Your task to perform on an android device: open app "File Manager" Image 0: 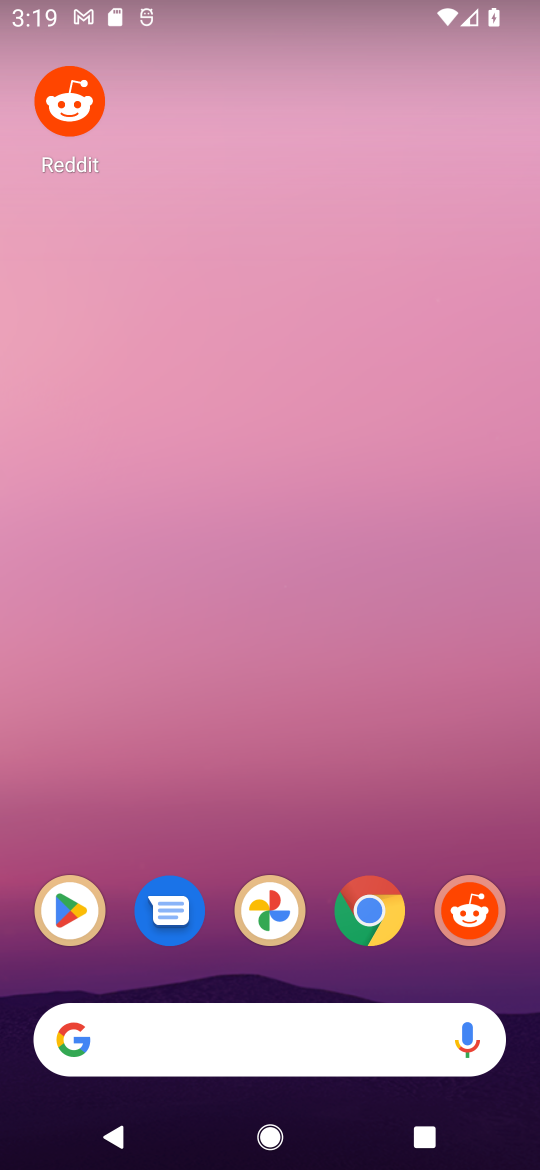
Step 0: drag from (306, 940) to (325, 118)
Your task to perform on an android device: open app "File Manager" Image 1: 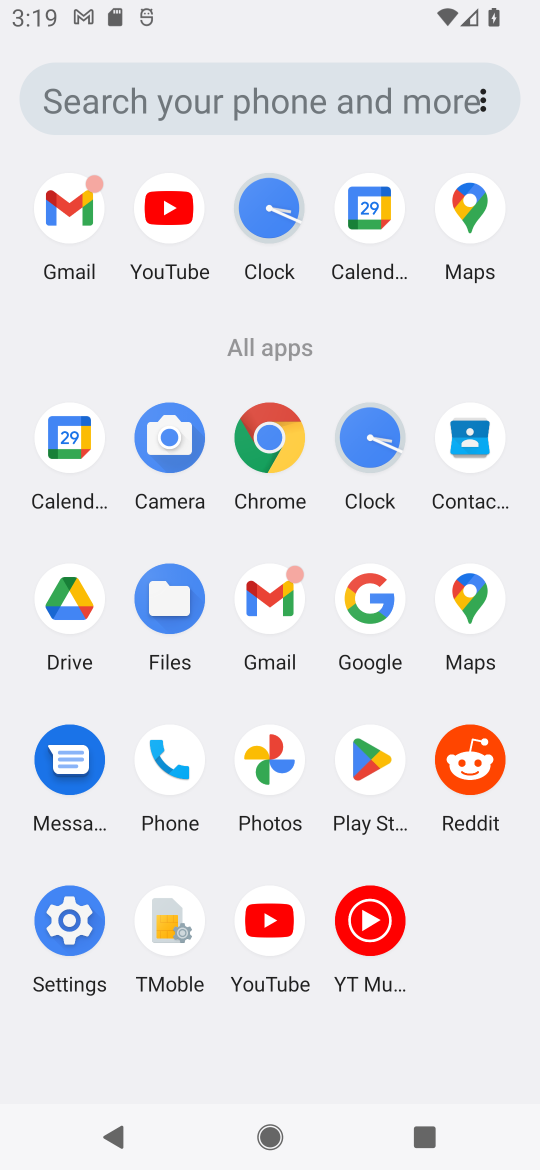
Step 1: click (350, 781)
Your task to perform on an android device: open app "File Manager" Image 2: 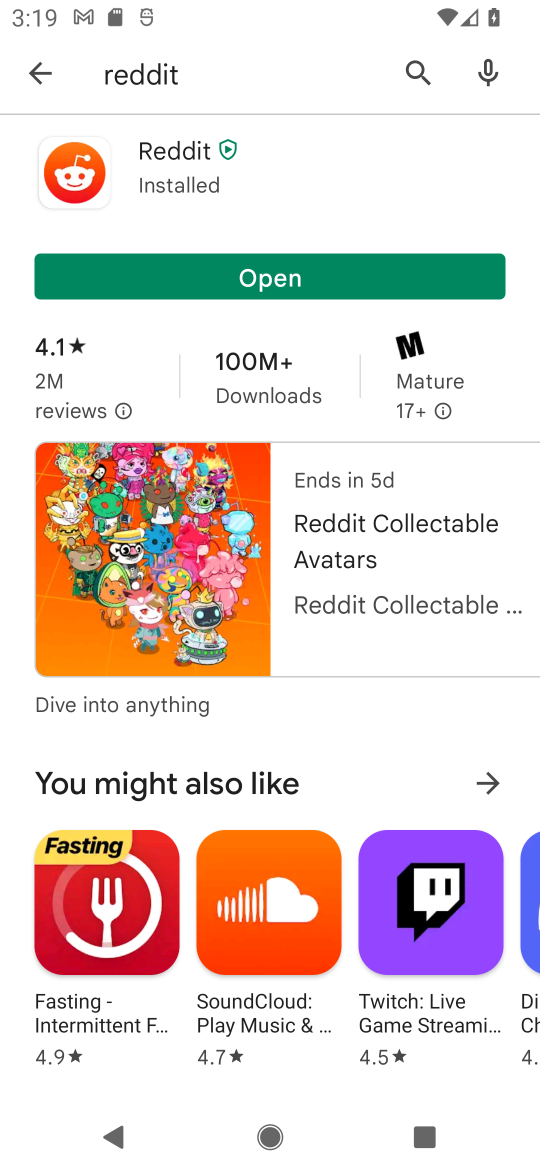
Step 2: click (41, 74)
Your task to perform on an android device: open app "File Manager" Image 3: 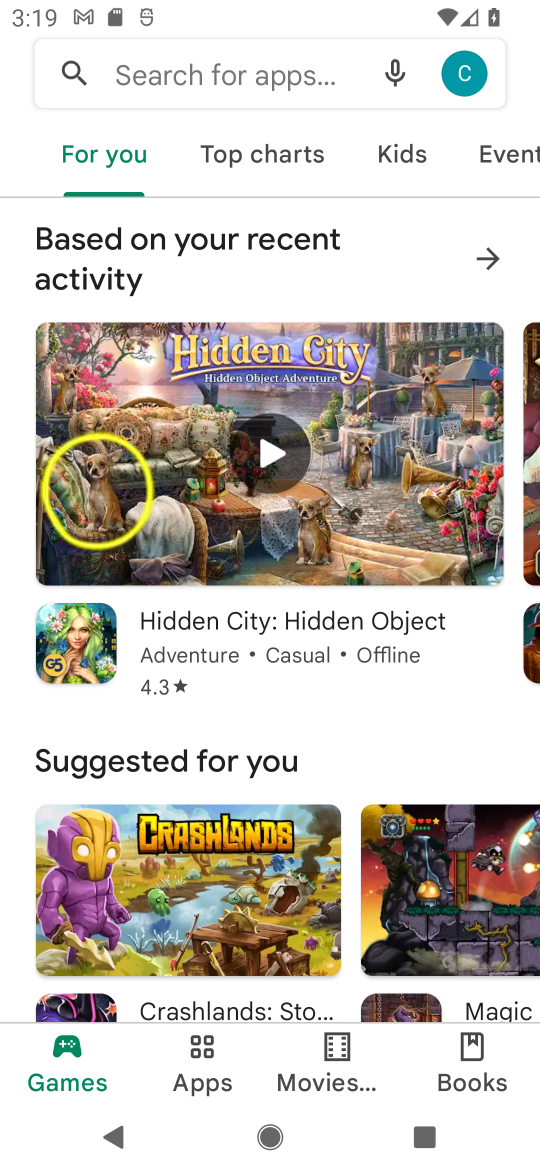
Step 3: click (271, 59)
Your task to perform on an android device: open app "File Manager" Image 4: 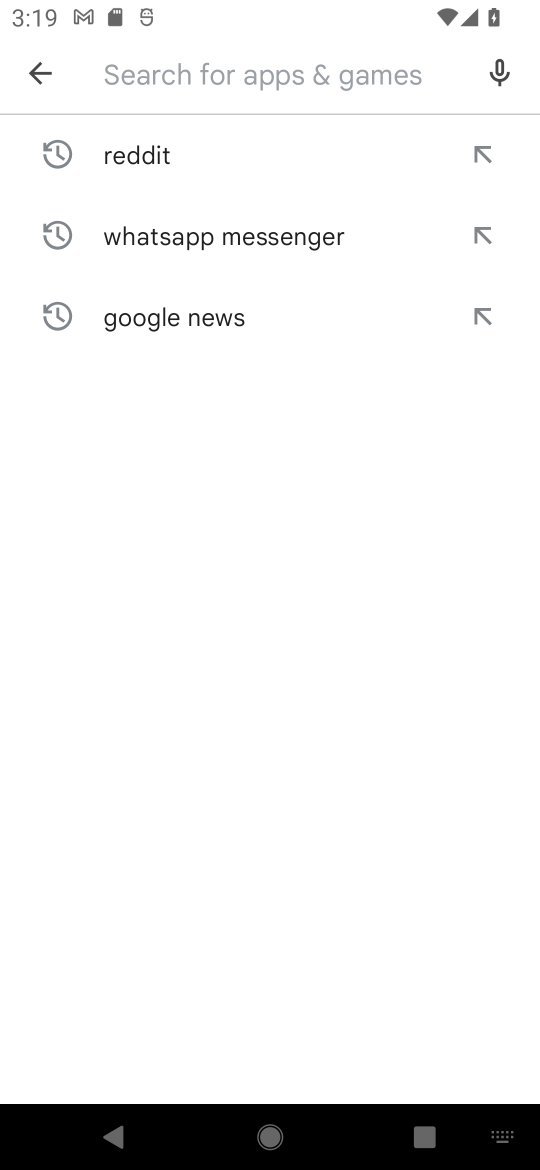
Step 4: type "File Manager"
Your task to perform on an android device: open app "File Manager" Image 5: 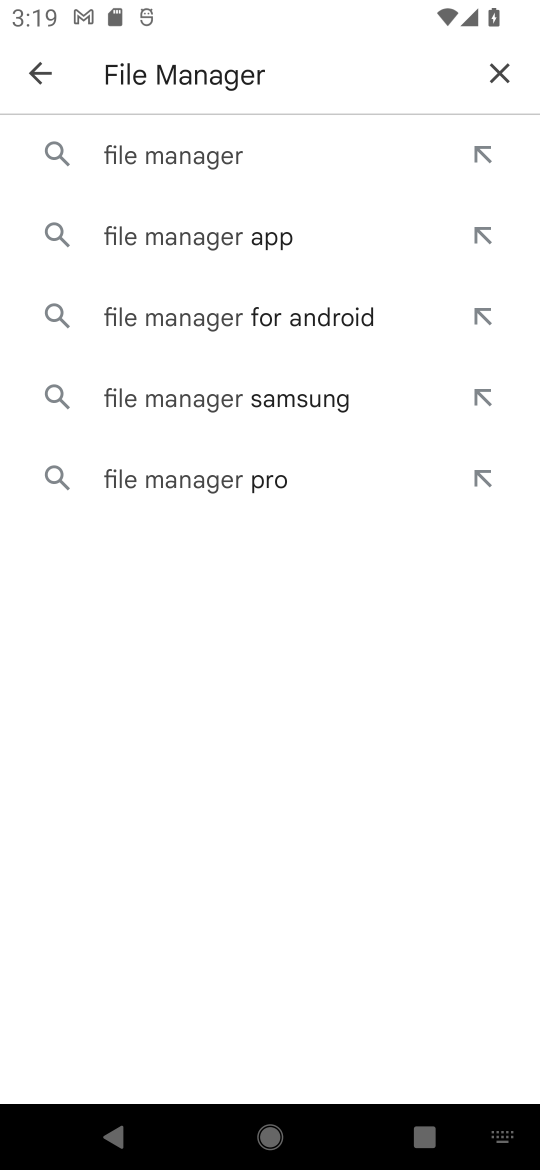
Step 5: click (210, 155)
Your task to perform on an android device: open app "File Manager" Image 6: 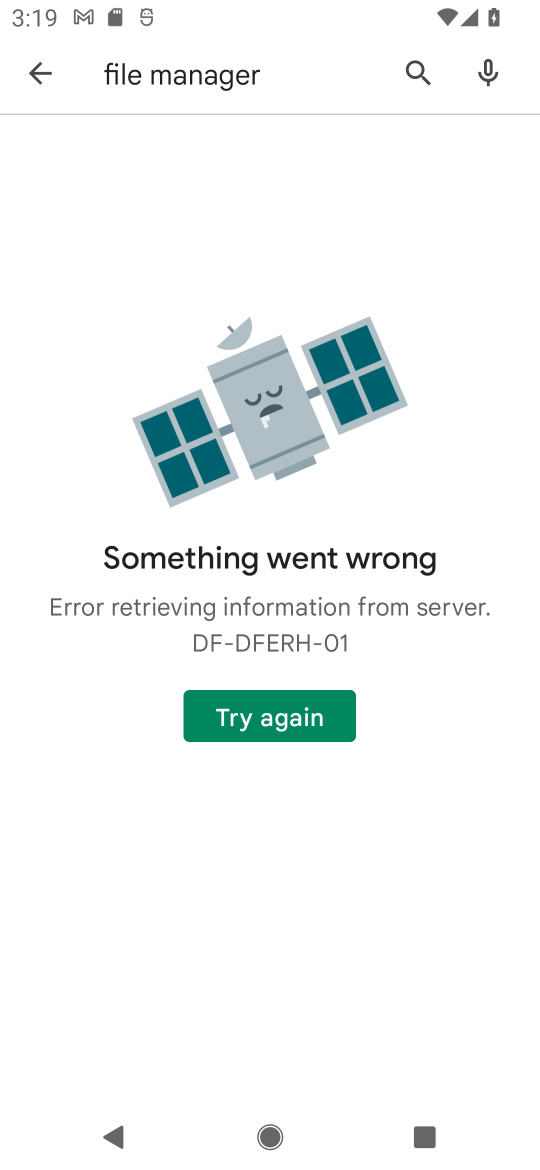
Step 6: click (282, 716)
Your task to perform on an android device: open app "File Manager" Image 7: 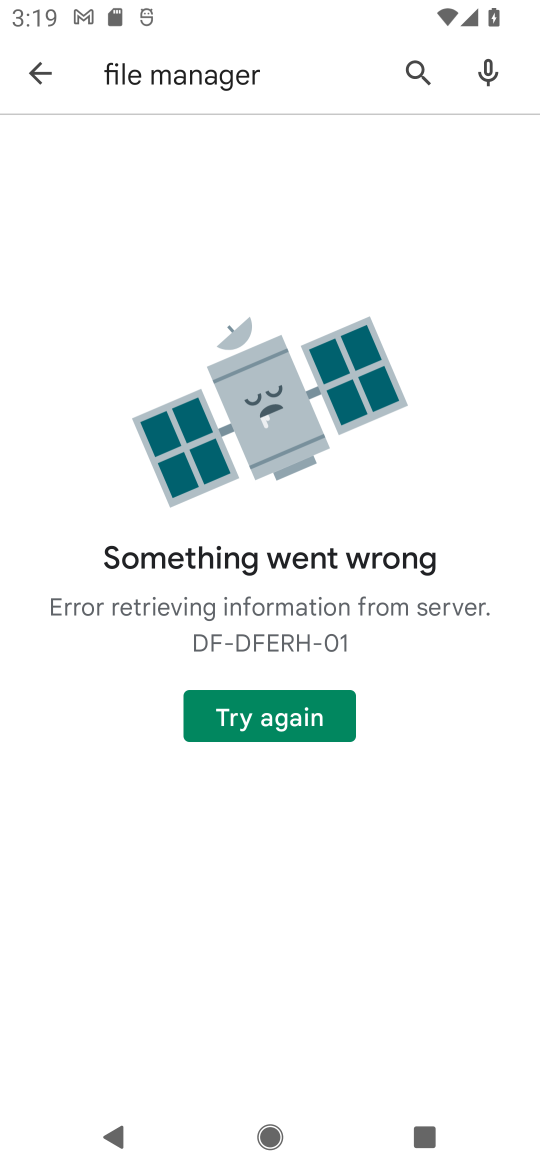
Step 7: click (292, 705)
Your task to perform on an android device: open app "File Manager" Image 8: 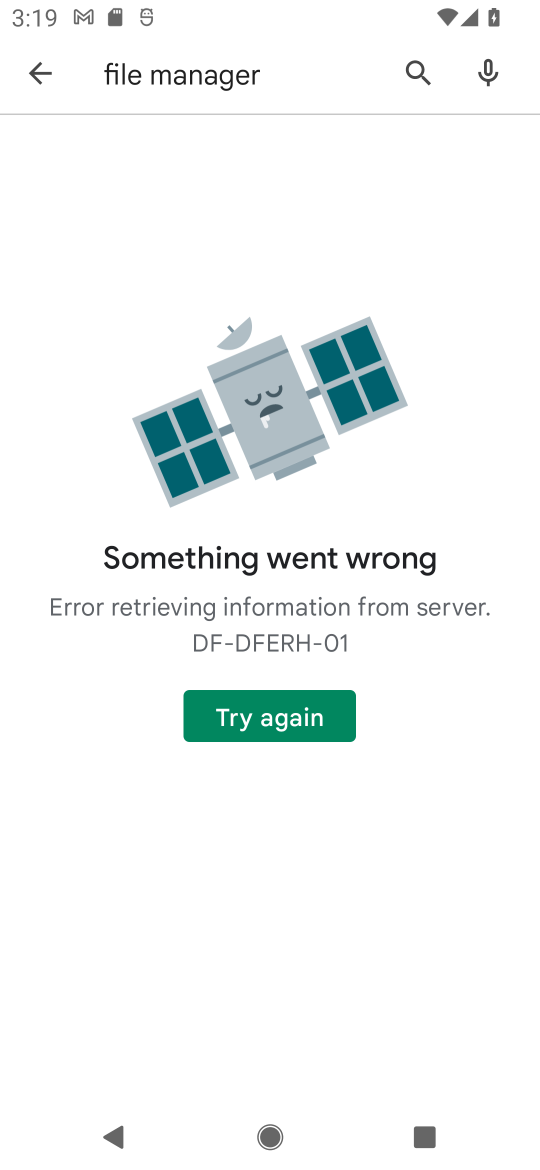
Step 8: press home button
Your task to perform on an android device: open app "File Manager" Image 9: 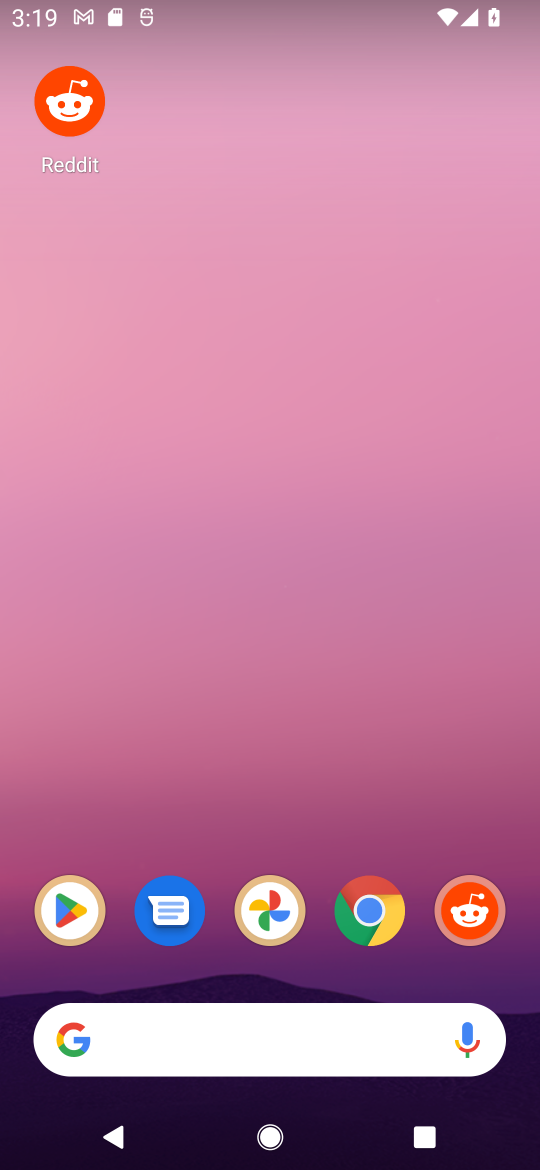
Step 9: drag from (246, 830) to (237, 221)
Your task to perform on an android device: open app "File Manager" Image 10: 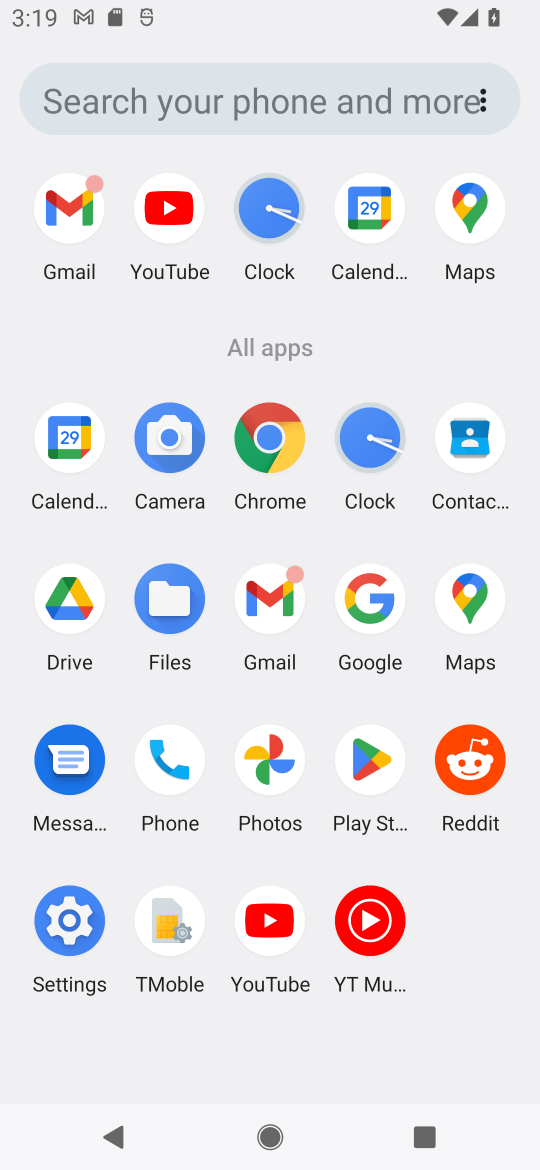
Step 10: click (359, 776)
Your task to perform on an android device: open app "File Manager" Image 11: 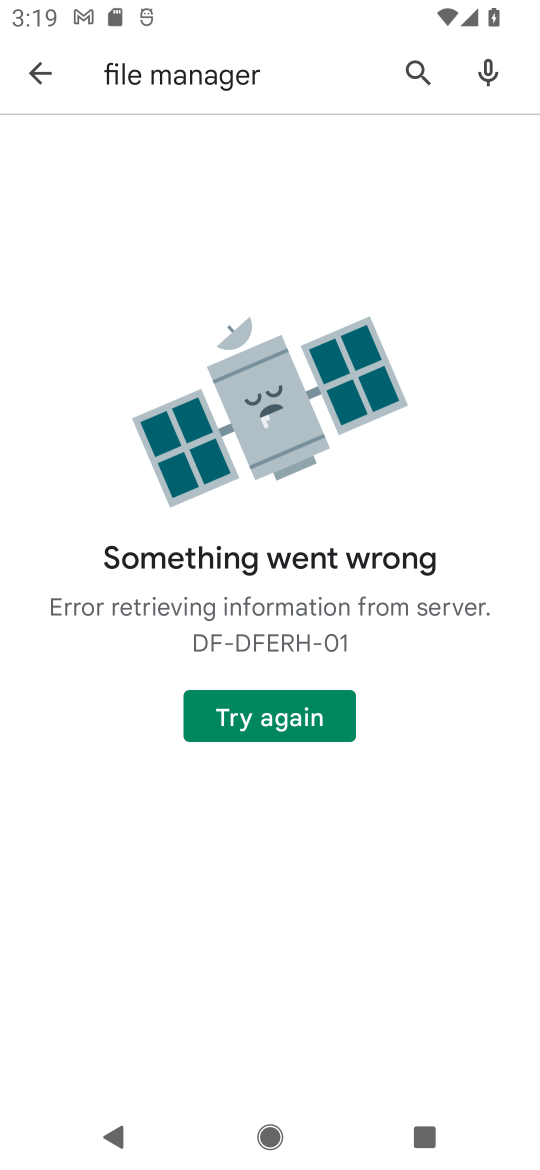
Step 11: click (52, 69)
Your task to perform on an android device: open app "File Manager" Image 12: 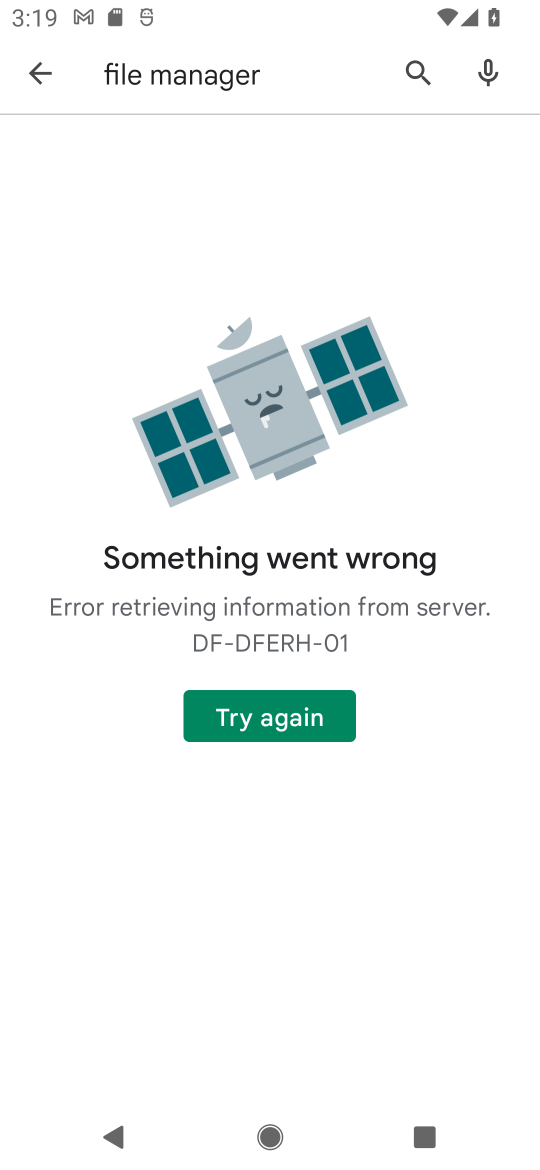
Step 12: press back button
Your task to perform on an android device: open app "File Manager" Image 13: 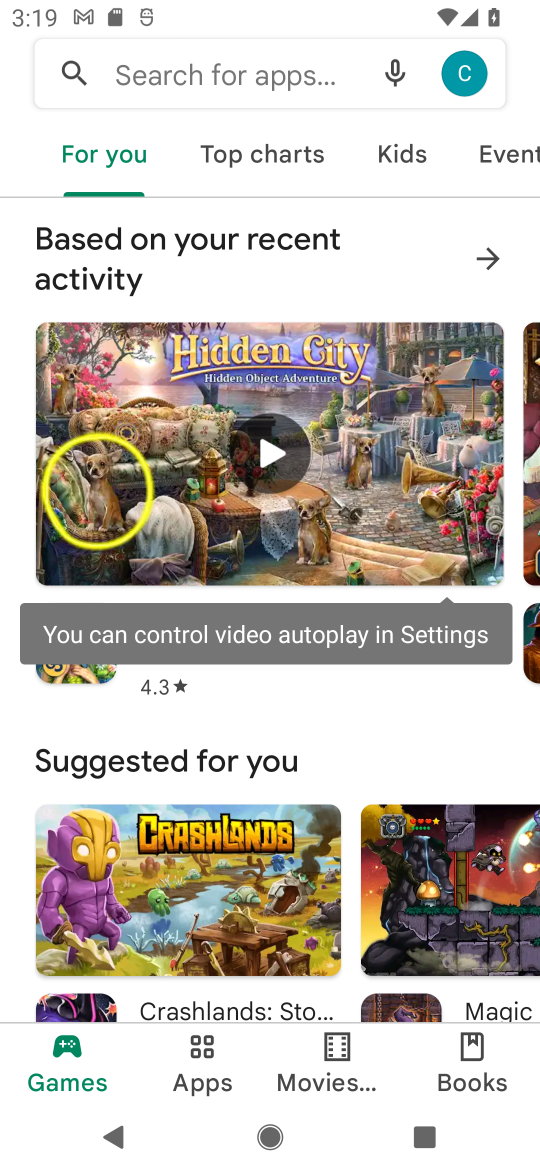
Step 13: click (170, 78)
Your task to perform on an android device: open app "File Manager" Image 14: 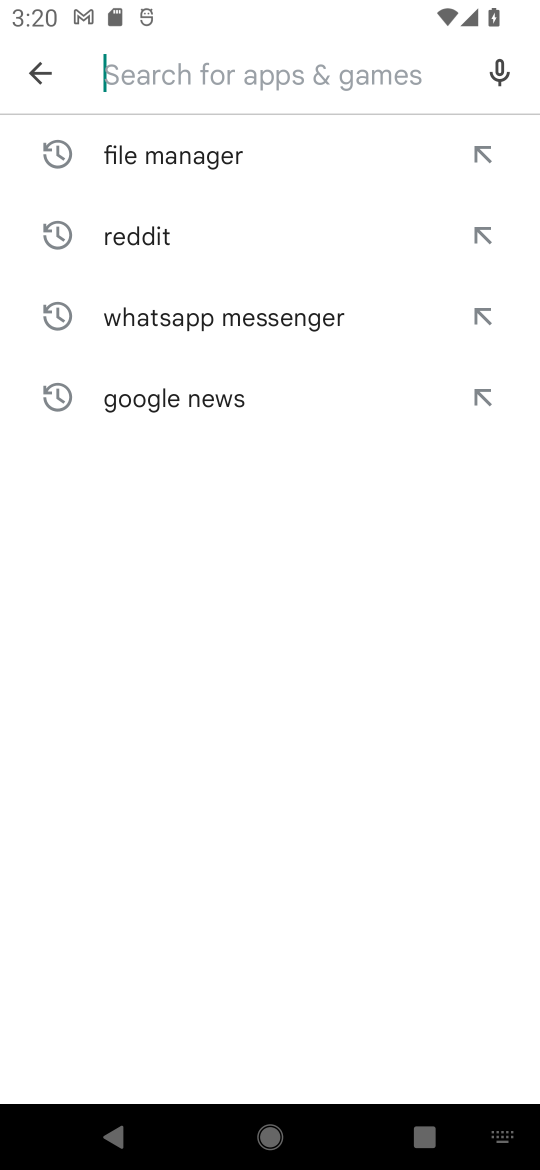
Step 14: type "File Manager"
Your task to perform on an android device: open app "File Manager" Image 15: 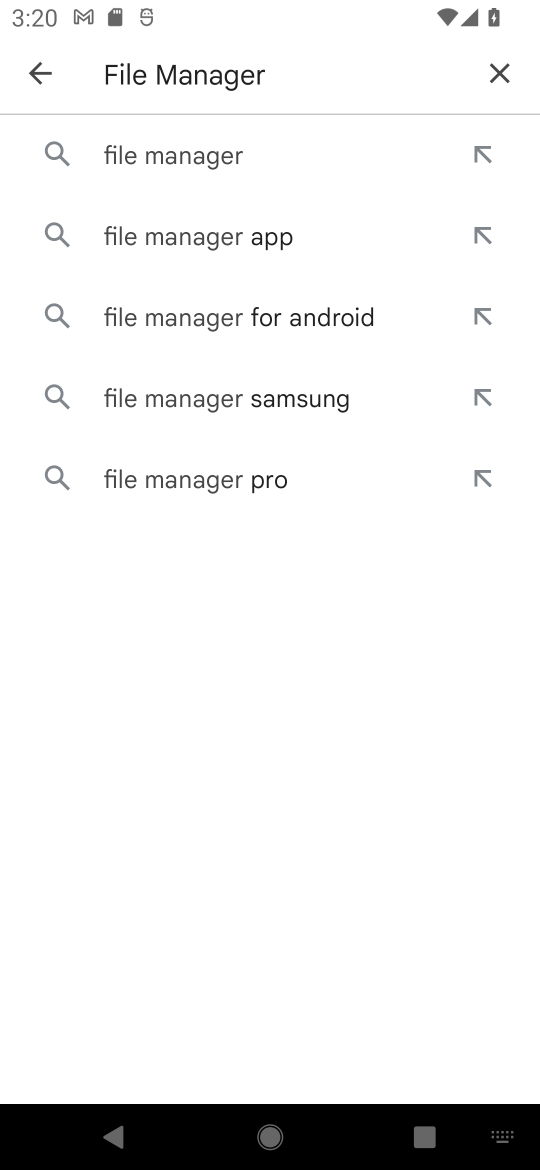
Step 15: click (179, 159)
Your task to perform on an android device: open app "File Manager" Image 16: 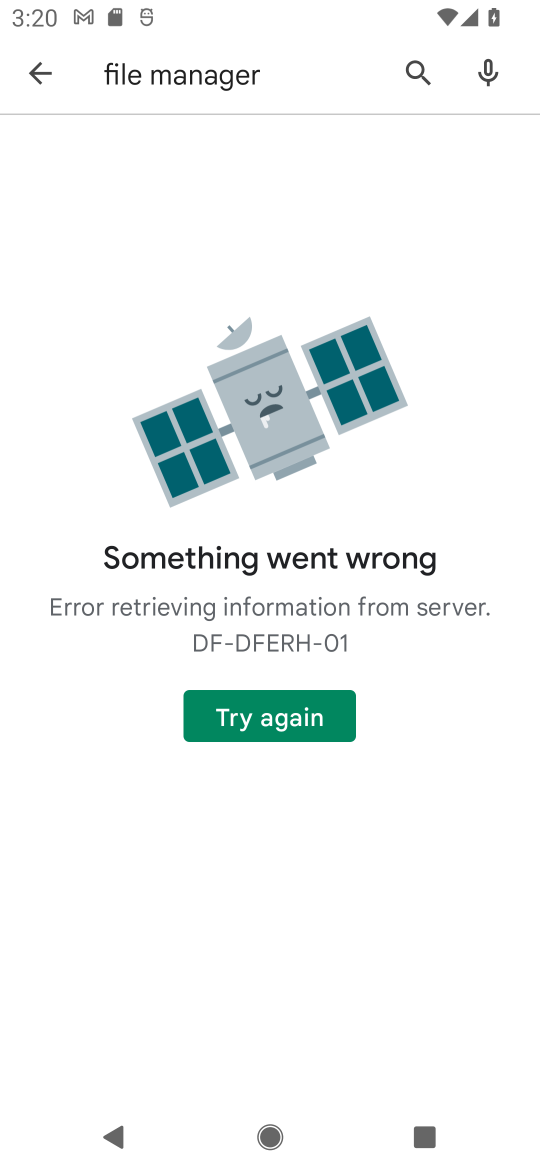
Step 16: task complete